Your task to perform on an android device: When is my next meeting? Image 0: 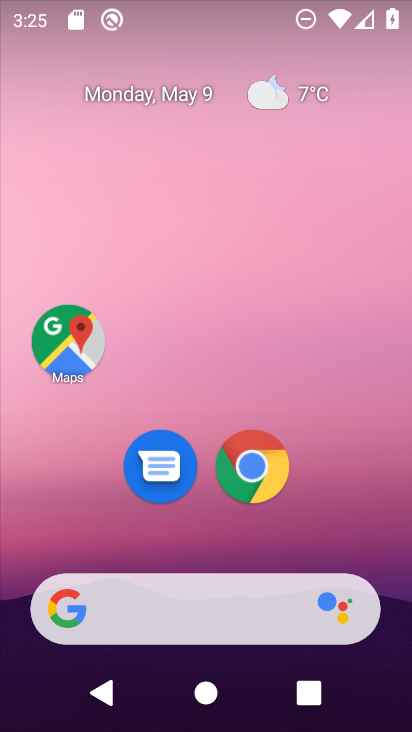
Step 0: drag from (3, 721) to (312, 173)
Your task to perform on an android device: When is my next meeting? Image 1: 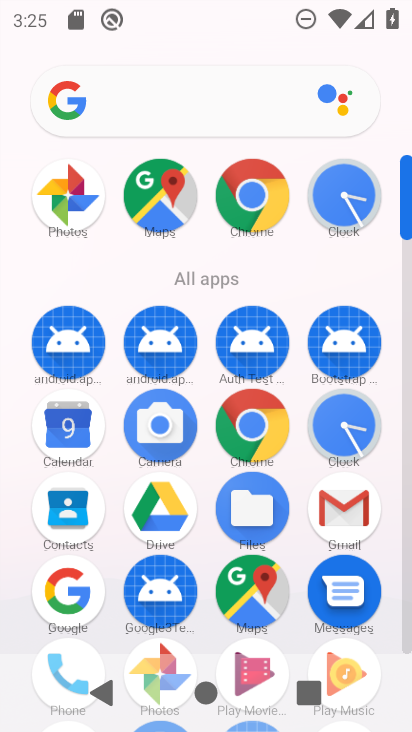
Step 1: click (68, 425)
Your task to perform on an android device: When is my next meeting? Image 2: 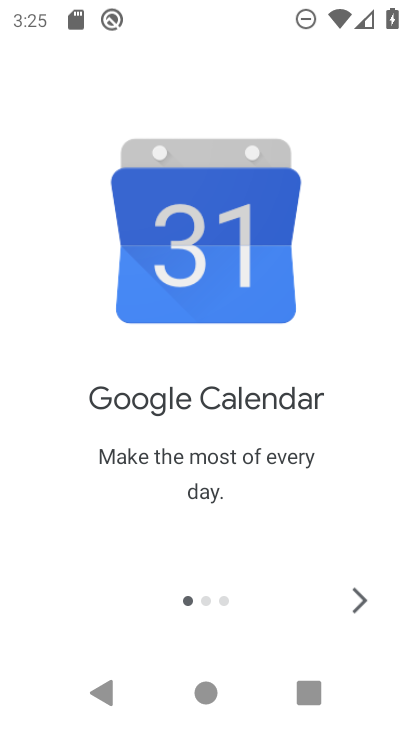
Step 2: click (353, 604)
Your task to perform on an android device: When is my next meeting? Image 3: 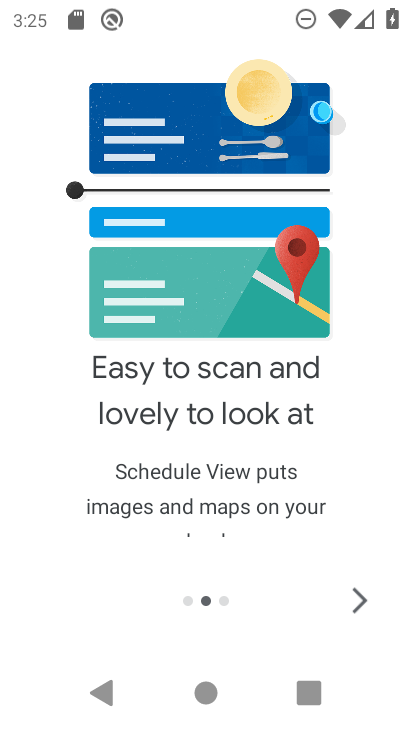
Step 3: click (353, 604)
Your task to perform on an android device: When is my next meeting? Image 4: 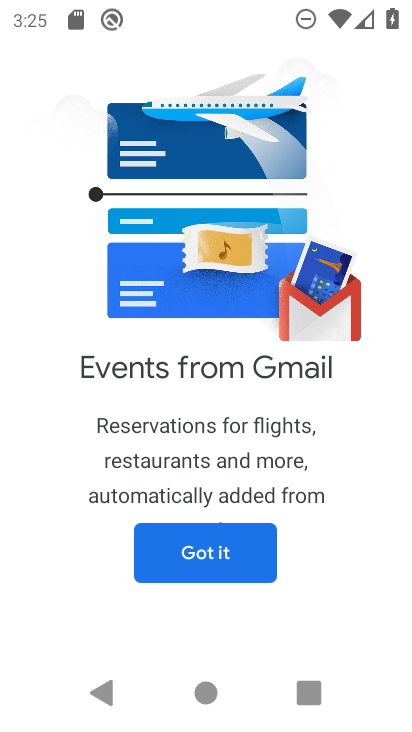
Step 4: click (270, 540)
Your task to perform on an android device: When is my next meeting? Image 5: 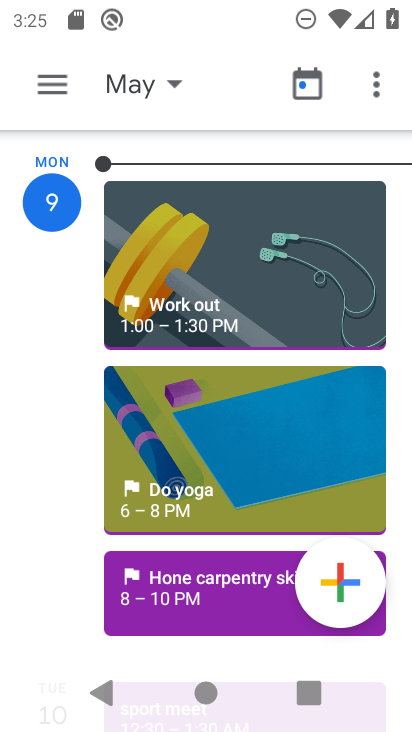
Step 5: task complete